Your task to perform on an android device: Open Google Maps and go to "Timeline" Image 0: 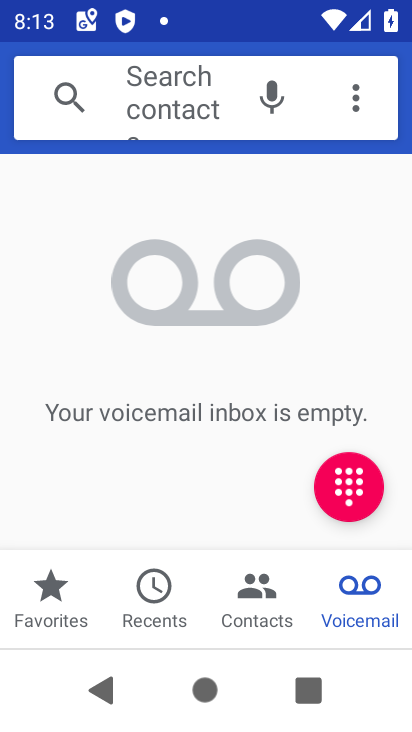
Step 0: press home button
Your task to perform on an android device: Open Google Maps and go to "Timeline" Image 1: 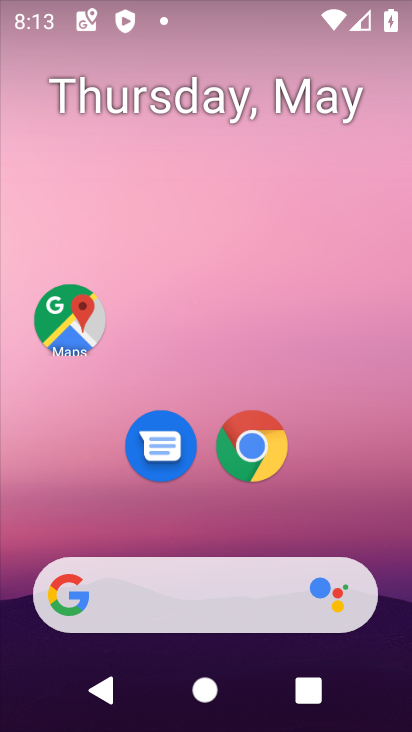
Step 1: drag from (399, 611) to (382, 119)
Your task to perform on an android device: Open Google Maps and go to "Timeline" Image 2: 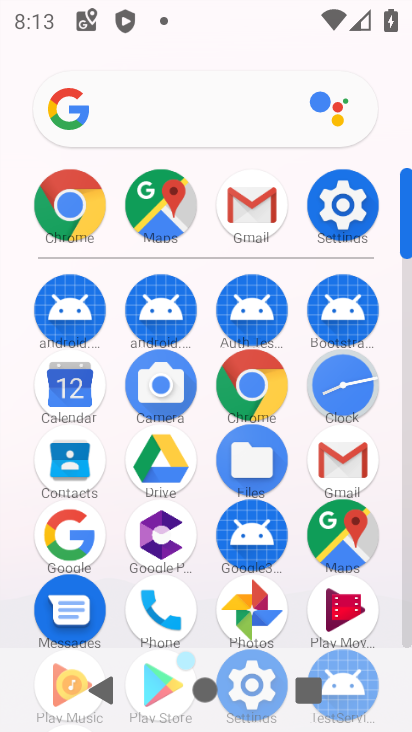
Step 2: click (330, 546)
Your task to perform on an android device: Open Google Maps and go to "Timeline" Image 3: 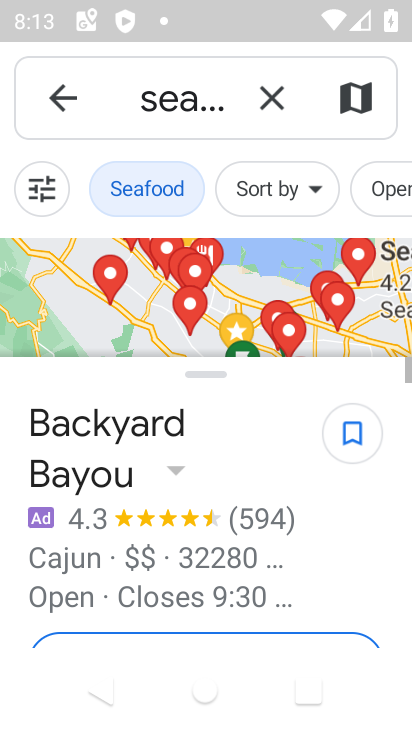
Step 3: click (274, 114)
Your task to perform on an android device: Open Google Maps and go to "Timeline" Image 4: 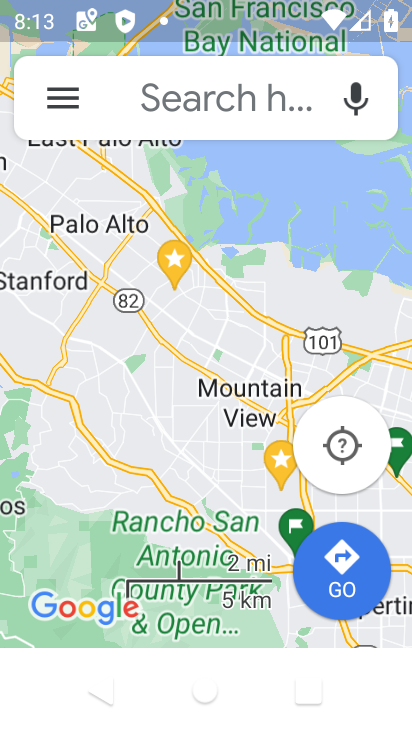
Step 4: click (137, 87)
Your task to perform on an android device: Open Google Maps and go to "Timeline" Image 5: 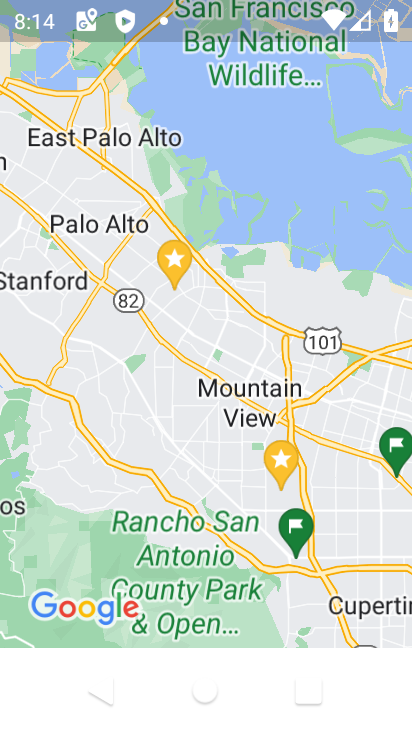
Step 5: drag from (267, 197) to (227, 418)
Your task to perform on an android device: Open Google Maps and go to "Timeline" Image 6: 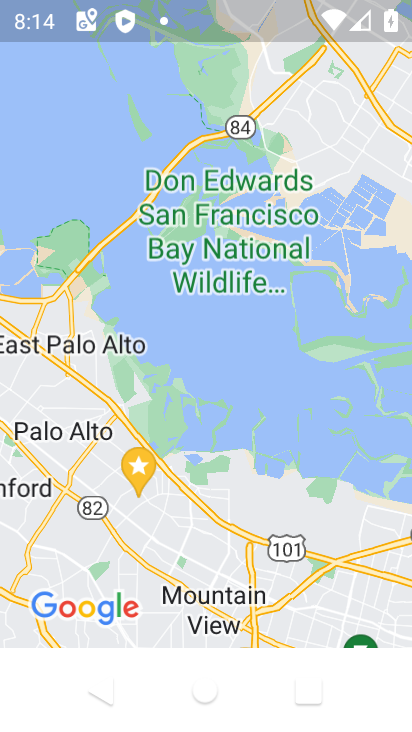
Step 6: drag from (294, 166) to (178, 556)
Your task to perform on an android device: Open Google Maps and go to "Timeline" Image 7: 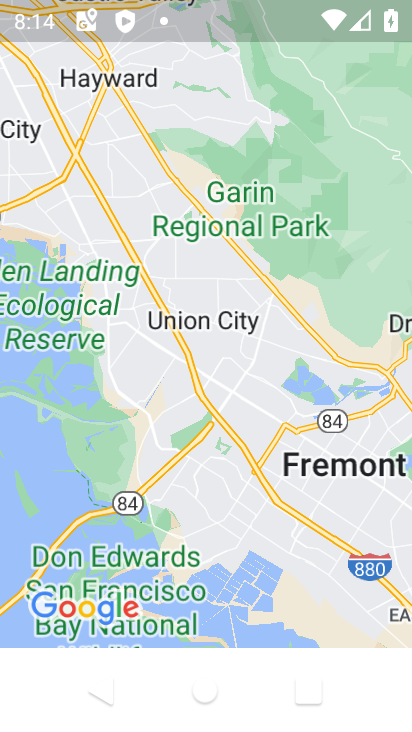
Step 7: drag from (45, 204) to (377, 298)
Your task to perform on an android device: Open Google Maps and go to "Timeline" Image 8: 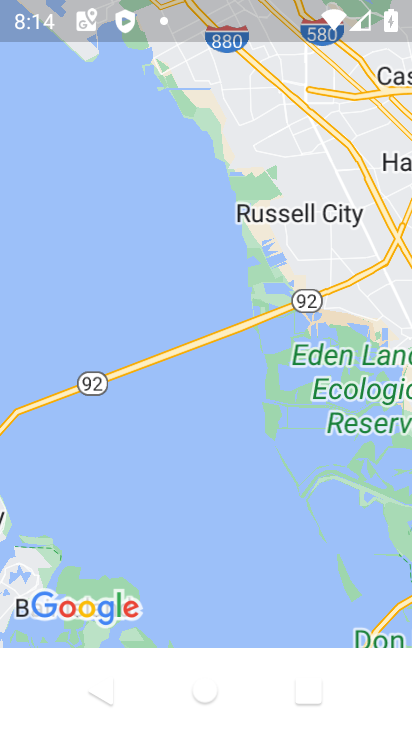
Step 8: press back button
Your task to perform on an android device: Open Google Maps and go to "Timeline" Image 9: 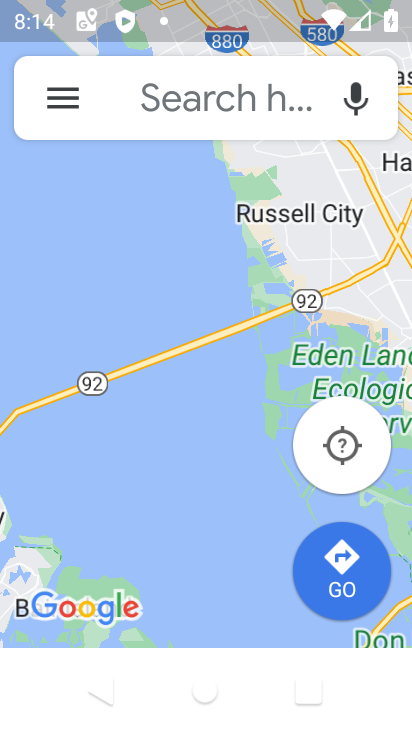
Step 9: click (55, 96)
Your task to perform on an android device: Open Google Maps and go to "Timeline" Image 10: 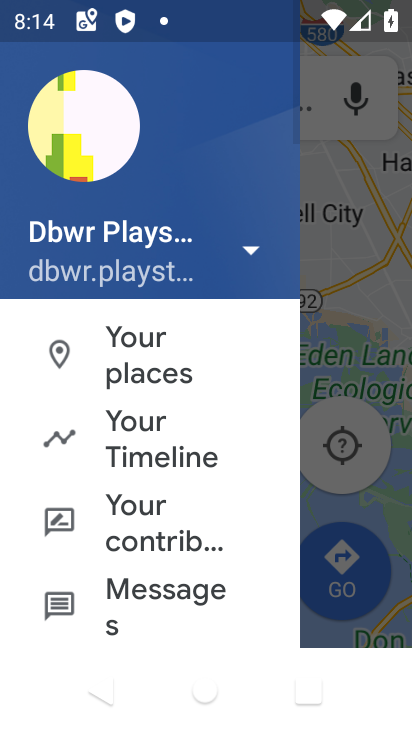
Step 10: click (168, 453)
Your task to perform on an android device: Open Google Maps and go to "Timeline" Image 11: 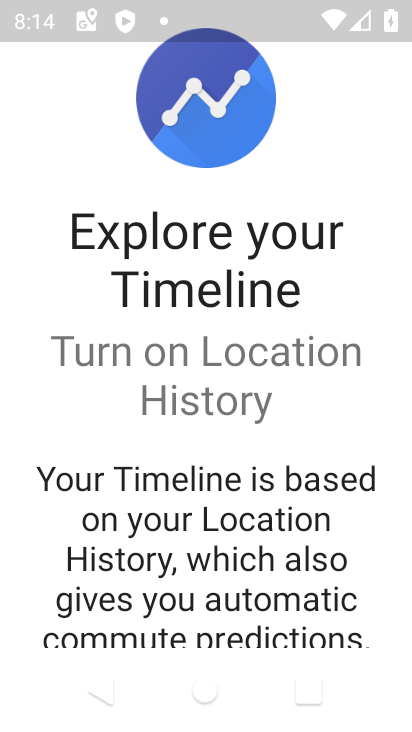
Step 11: drag from (229, 598) to (297, 262)
Your task to perform on an android device: Open Google Maps and go to "Timeline" Image 12: 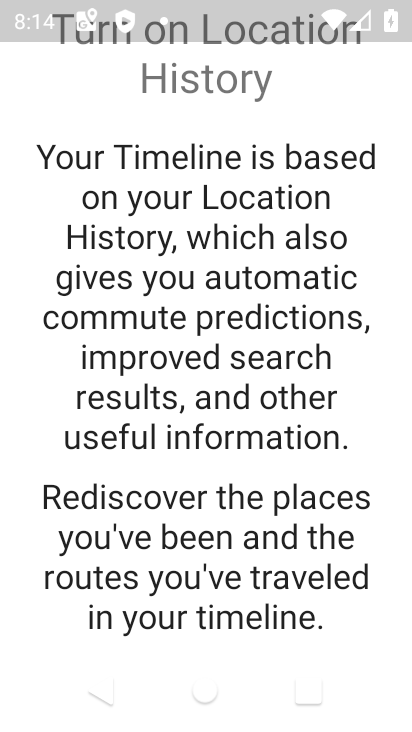
Step 12: drag from (244, 579) to (280, 145)
Your task to perform on an android device: Open Google Maps and go to "Timeline" Image 13: 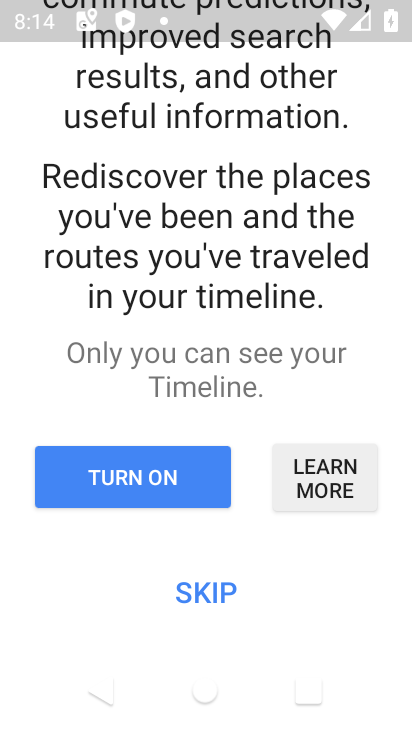
Step 13: click (212, 593)
Your task to perform on an android device: Open Google Maps and go to "Timeline" Image 14: 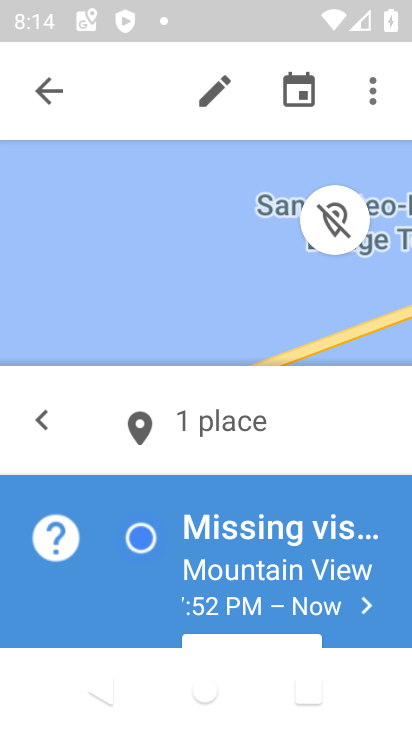
Step 14: task complete